Your task to perform on an android device: Open calendar and show me the third week of next month Image 0: 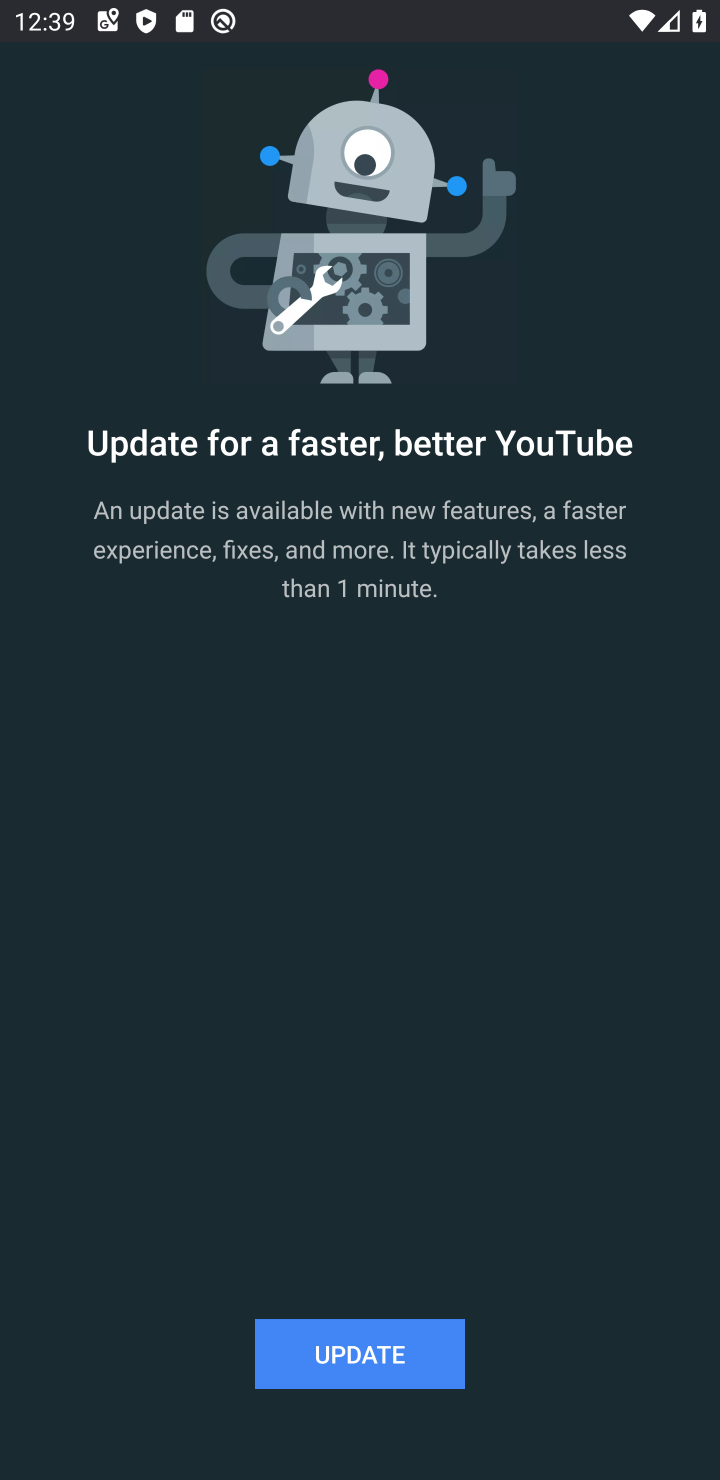
Step 0: press home button
Your task to perform on an android device: Open calendar and show me the third week of next month Image 1: 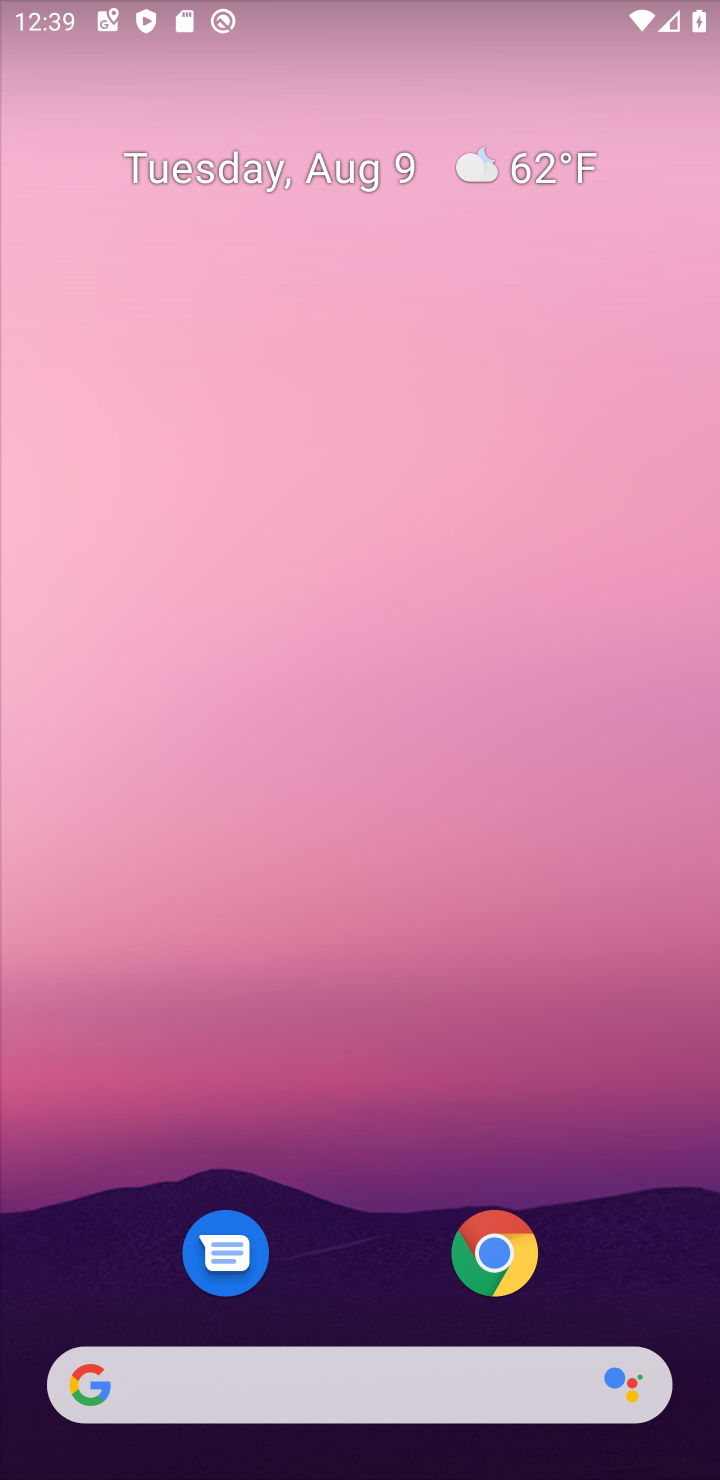
Step 1: drag from (646, 1257) to (458, 78)
Your task to perform on an android device: Open calendar and show me the third week of next month Image 2: 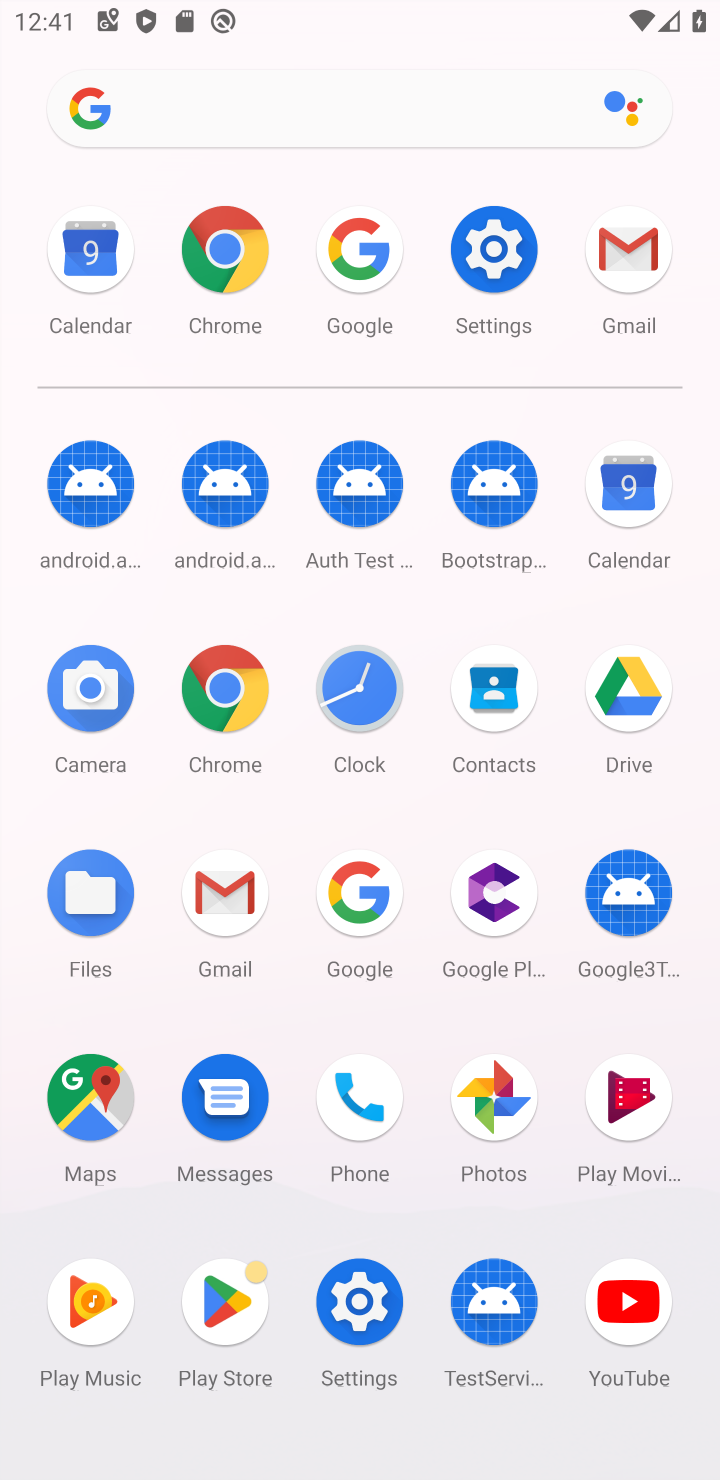
Step 2: click (659, 492)
Your task to perform on an android device: Open calendar and show me the third week of next month Image 3: 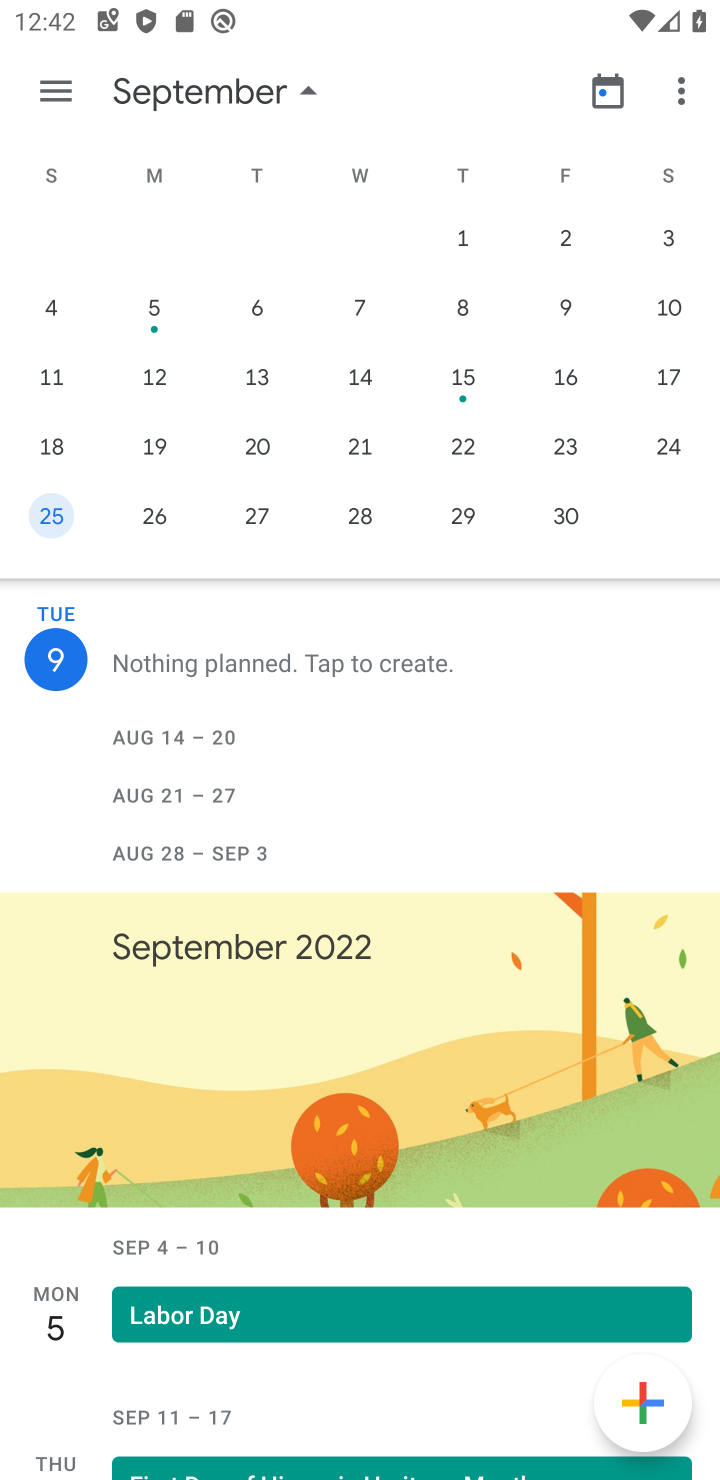
Step 3: drag from (685, 324) to (2, 350)
Your task to perform on an android device: Open calendar and show me the third week of next month Image 4: 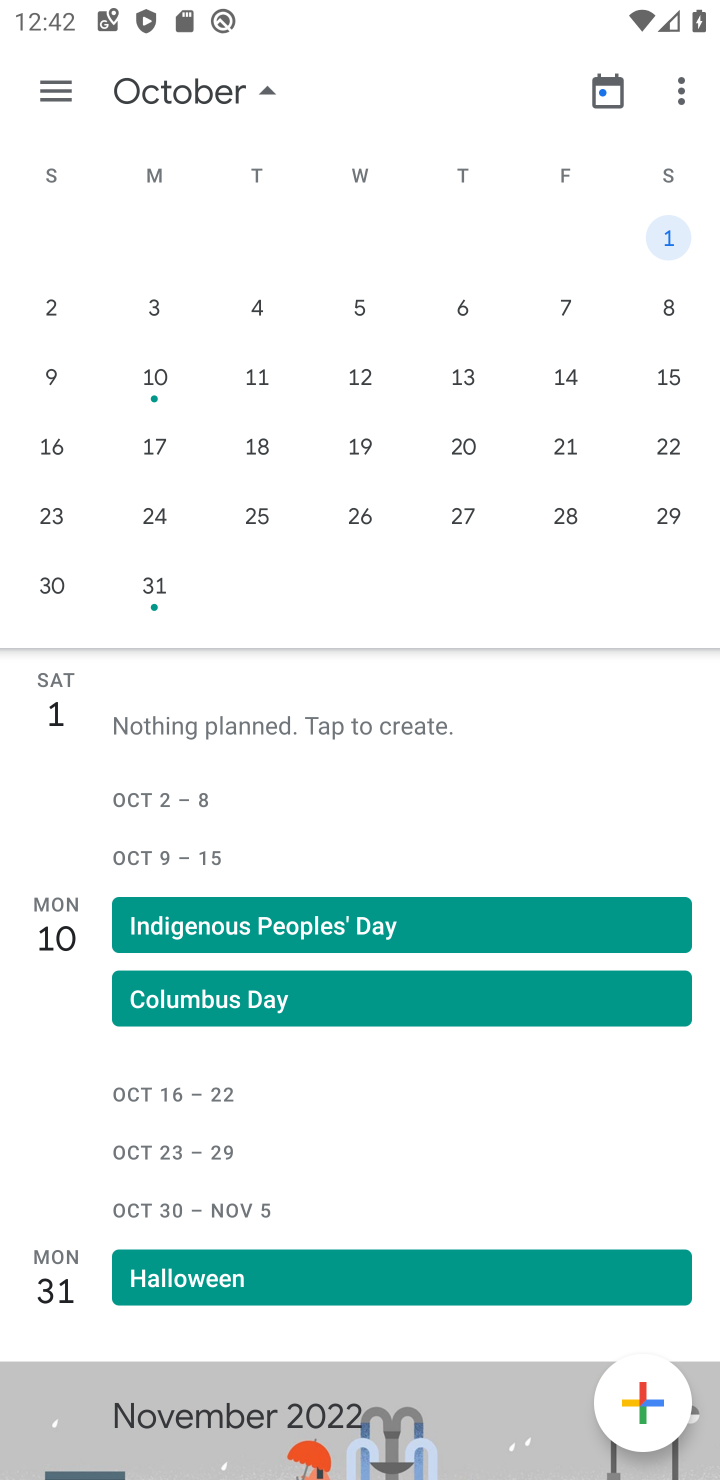
Step 4: click (53, 459)
Your task to perform on an android device: Open calendar and show me the third week of next month Image 5: 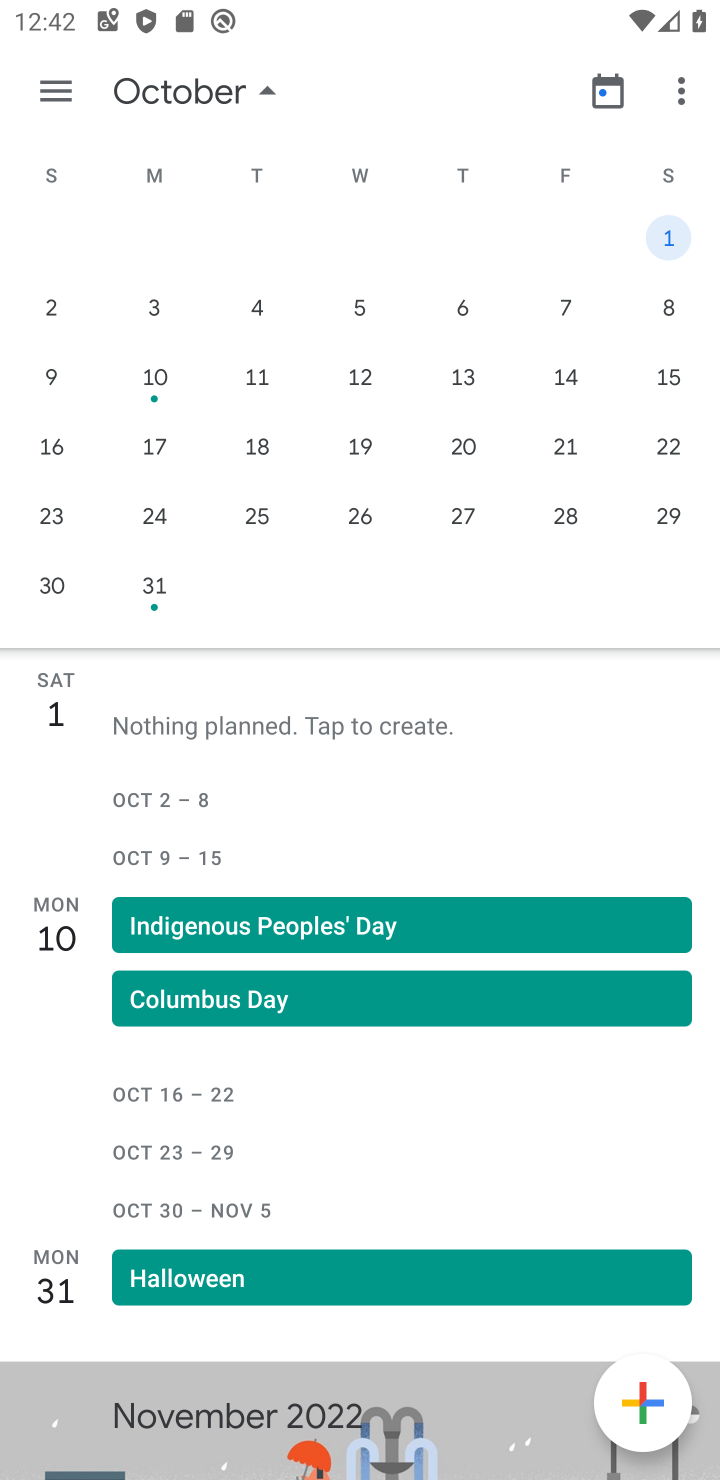
Step 5: click (49, 436)
Your task to perform on an android device: Open calendar and show me the third week of next month Image 6: 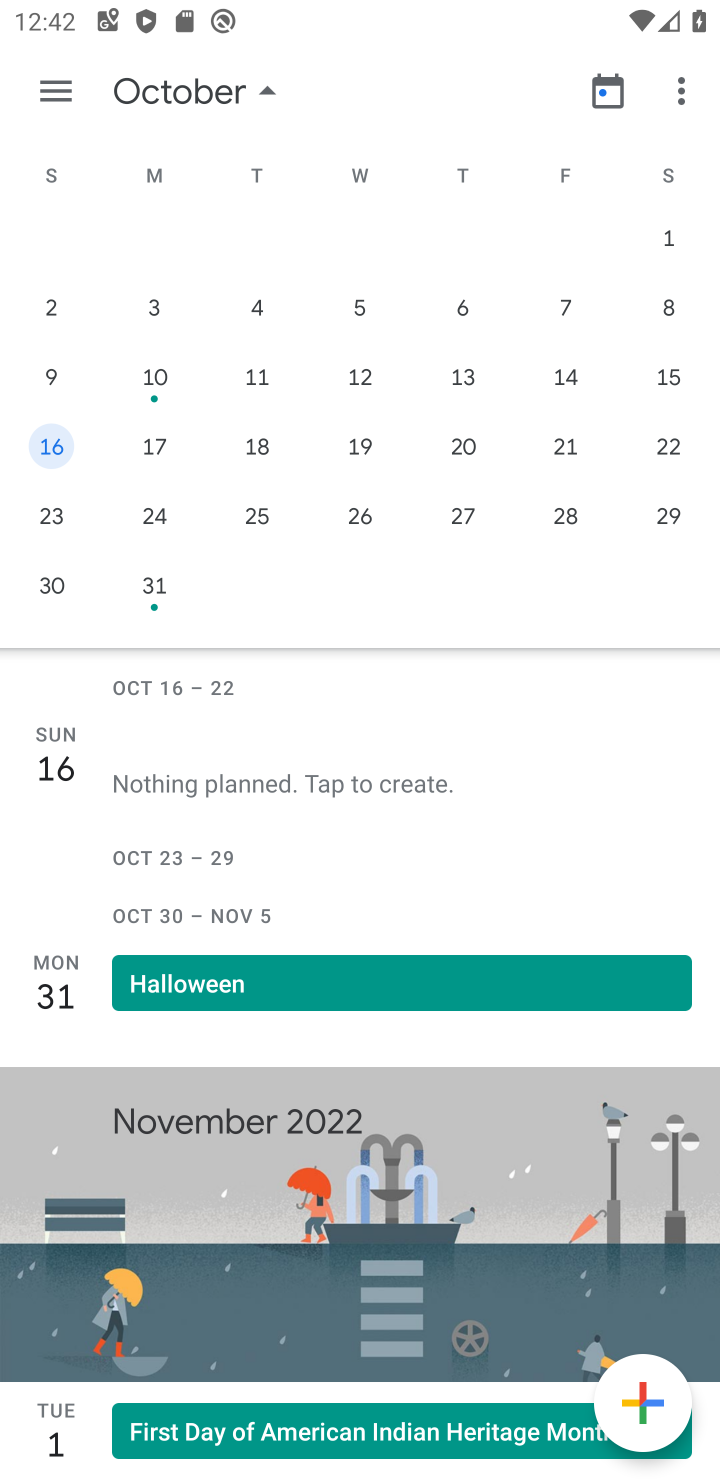
Step 6: task complete